Your task to perform on an android device: Play the last video I watched on Youtube Image 0: 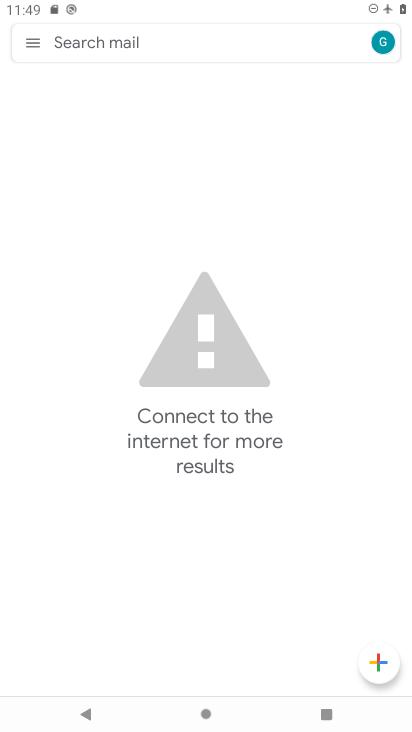
Step 0: press home button
Your task to perform on an android device: Play the last video I watched on Youtube Image 1: 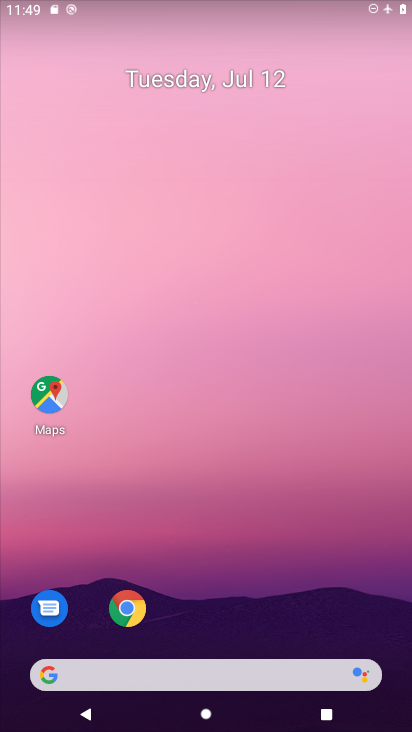
Step 1: drag from (231, 638) to (225, 134)
Your task to perform on an android device: Play the last video I watched on Youtube Image 2: 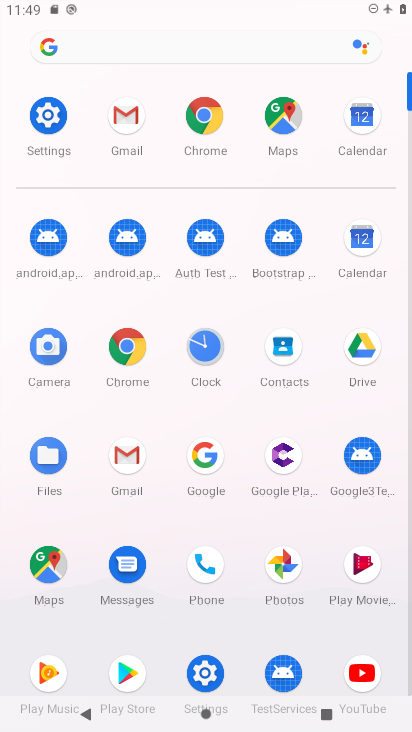
Step 2: click (359, 669)
Your task to perform on an android device: Play the last video I watched on Youtube Image 3: 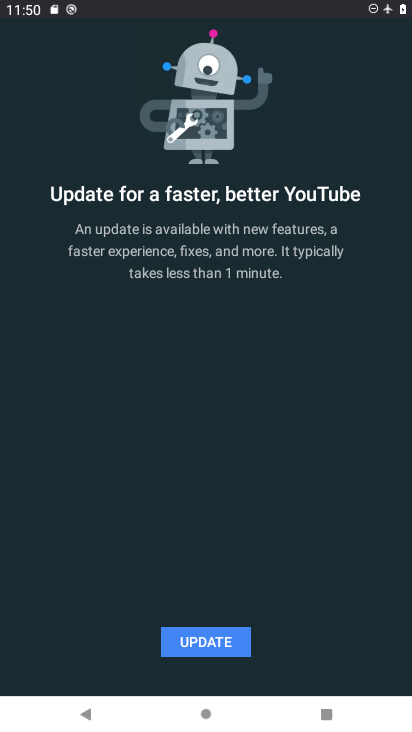
Step 3: task complete